Your task to perform on an android device: Open notification settings Image 0: 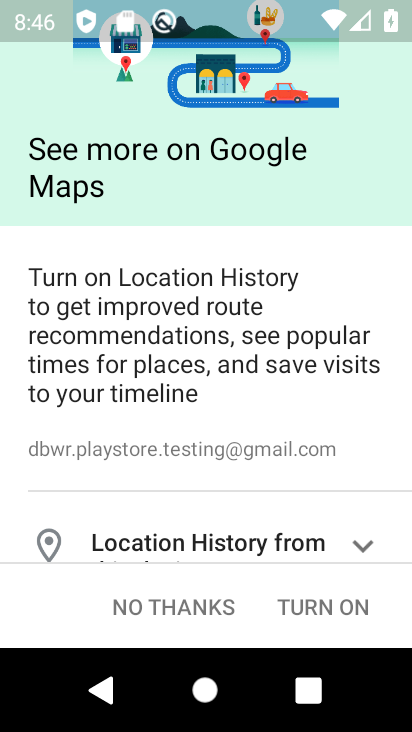
Step 0: press home button
Your task to perform on an android device: Open notification settings Image 1: 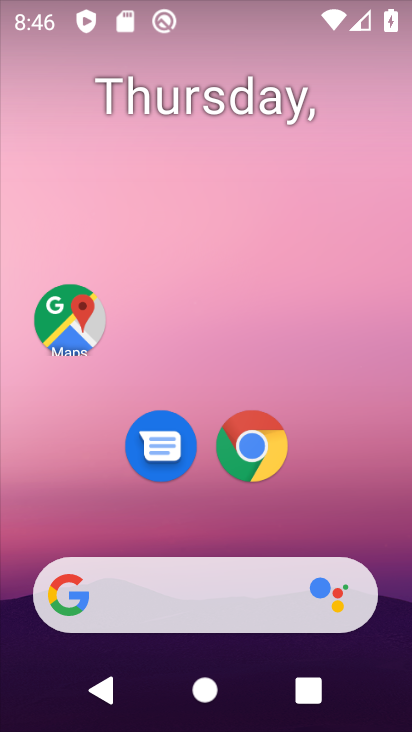
Step 1: drag from (401, 538) to (322, 20)
Your task to perform on an android device: Open notification settings Image 2: 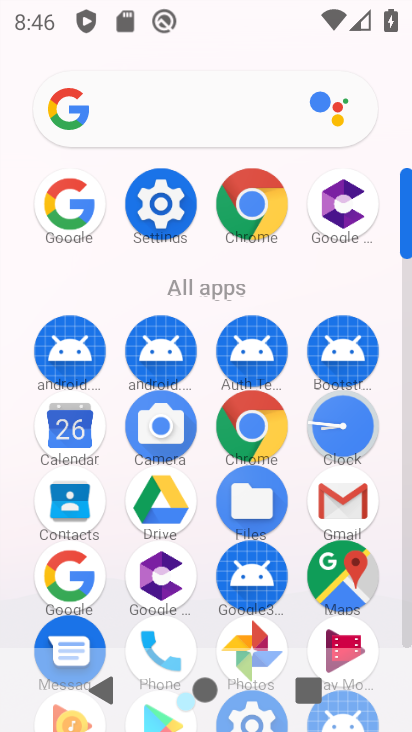
Step 2: drag from (409, 205) to (388, 641)
Your task to perform on an android device: Open notification settings Image 3: 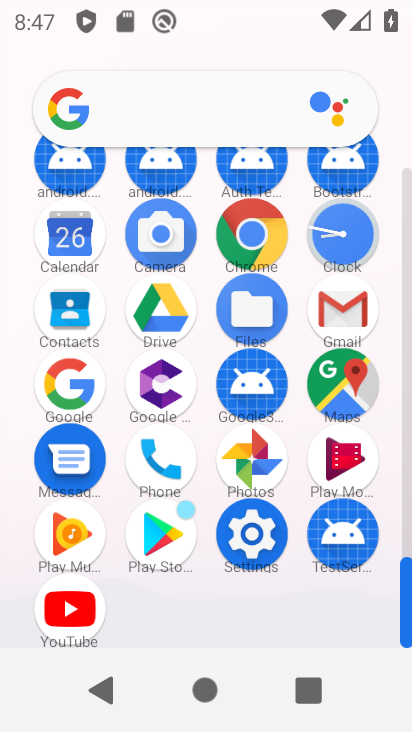
Step 3: click (233, 551)
Your task to perform on an android device: Open notification settings Image 4: 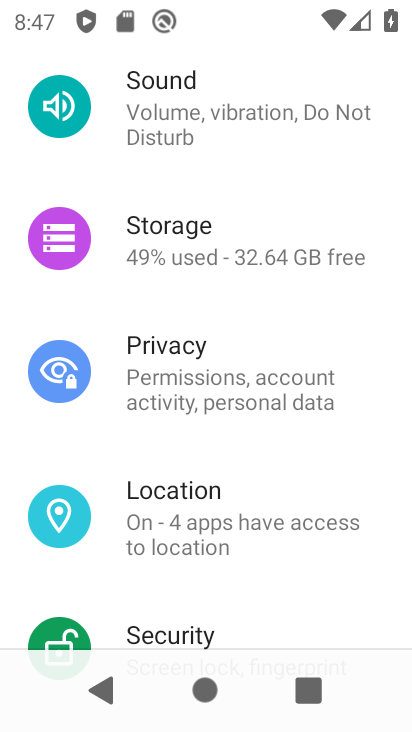
Step 4: drag from (236, 101) to (311, 565)
Your task to perform on an android device: Open notification settings Image 5: 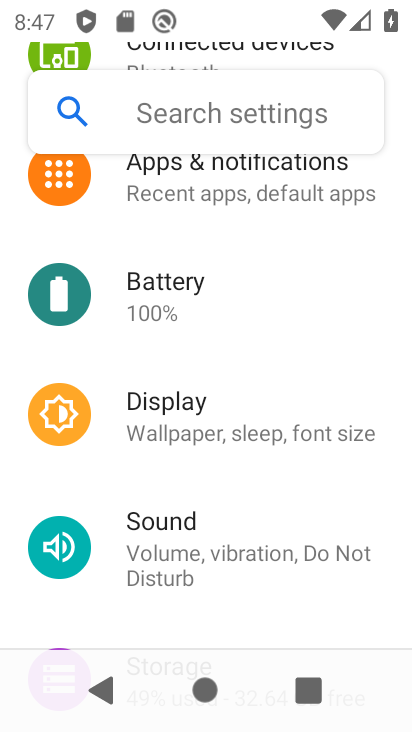
Step 5: drag from (298, 385) to (346, 622)
Your task to perform on an android device: Open notification settings Image 6: 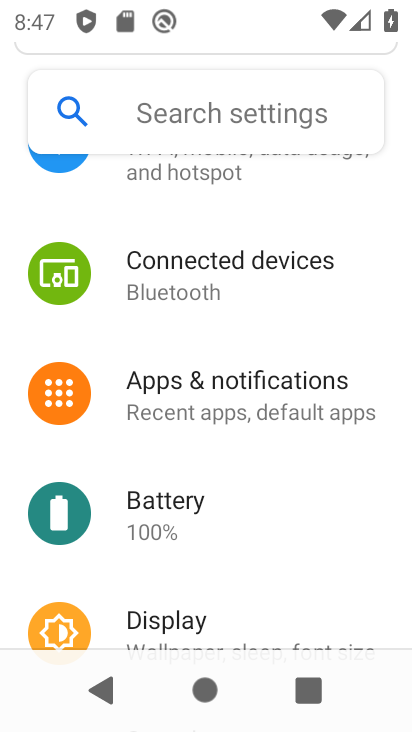
Step 6: click (201, 401)
Your task to perform on an android device: Open notification settings Image 7: 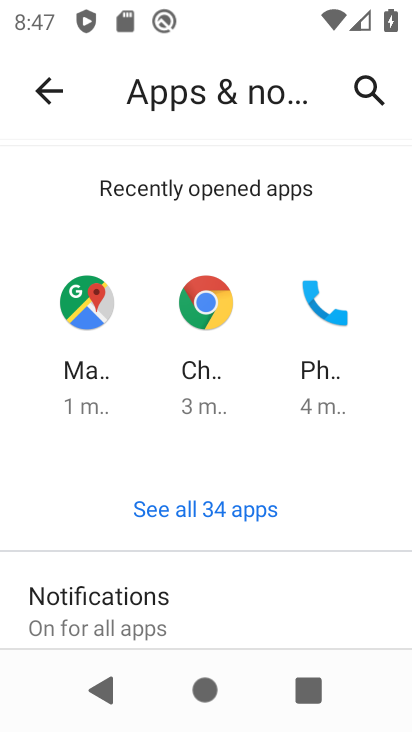
Step 7: click (264, 605)
Your task to perform on an android device: Open notification settings Image 8: 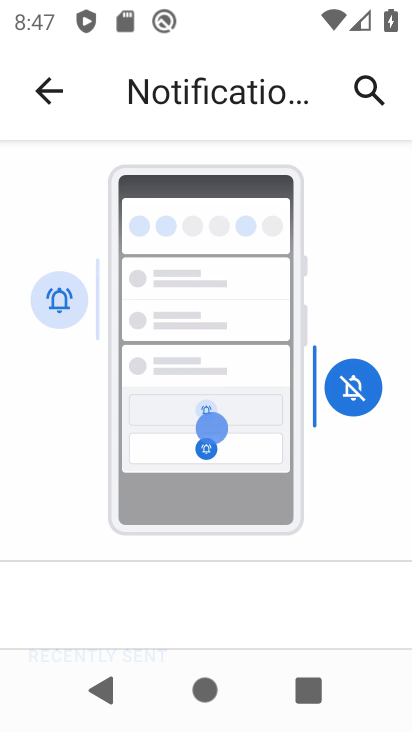
Step 8: task complete